Your task to perform on an android device: open device folders in google photos Image 0: 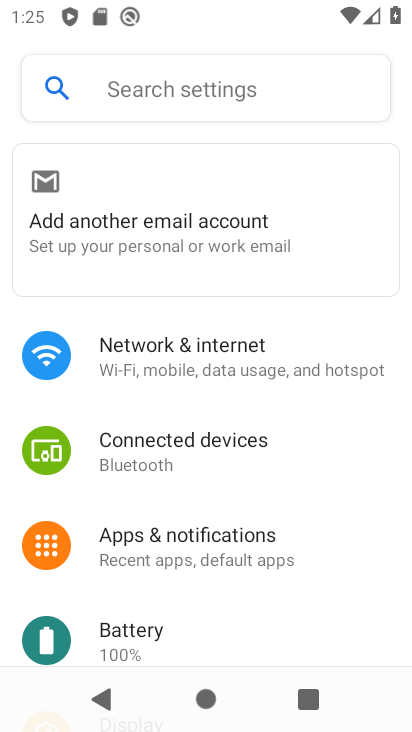
Step 0: press back button
Your task to perform on an android device: open device folders in google photos Image 1: 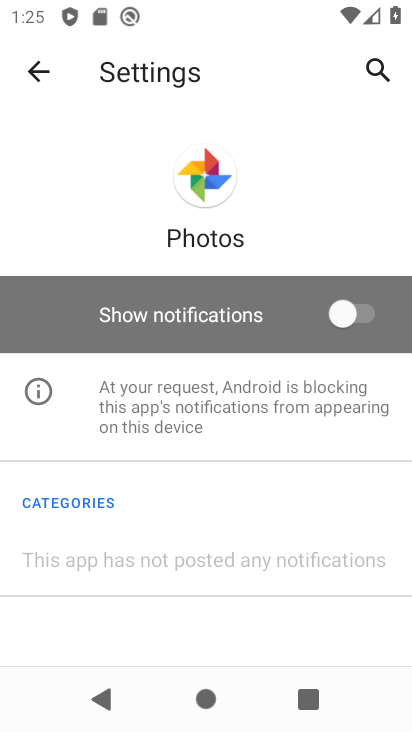
Step 1: click (47, 78)
Your task to perform on an android device: open device folders in google photos Image 2: 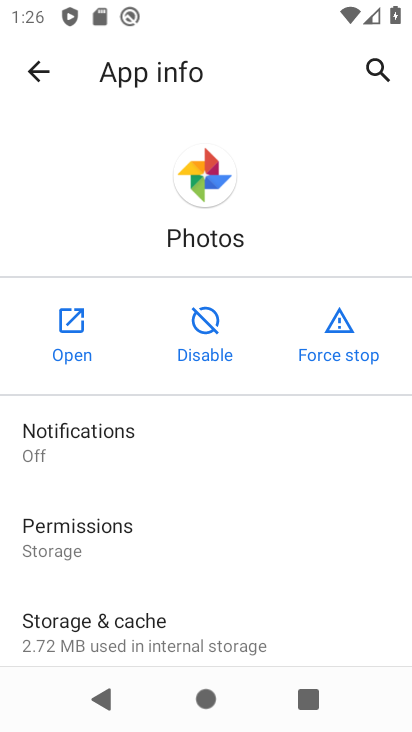
Step 2: click (38, 62)
Your task to perform on an android device: open device folders in google photos Image 3: 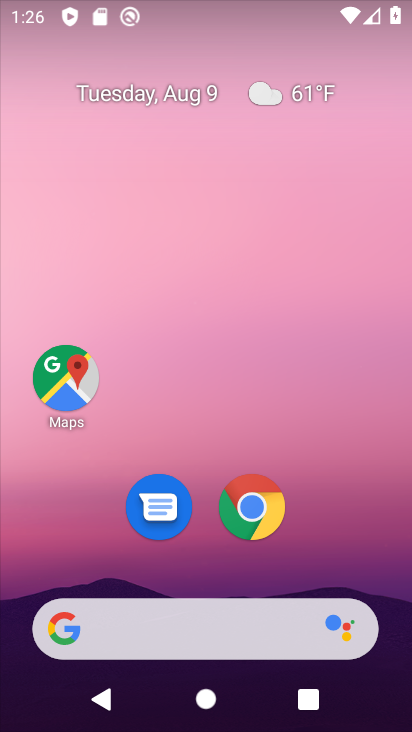
Step 3: drag from (168, 637) to (211, 38)
Your task to perform on an android device: open device folders in google photos Image 4: 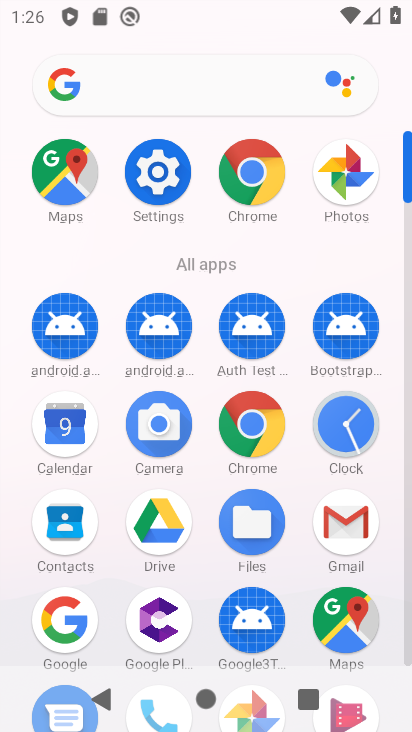
Step 4: click (341, 169)
Your task to perform on an android device: open device folders in google photos Image 5: 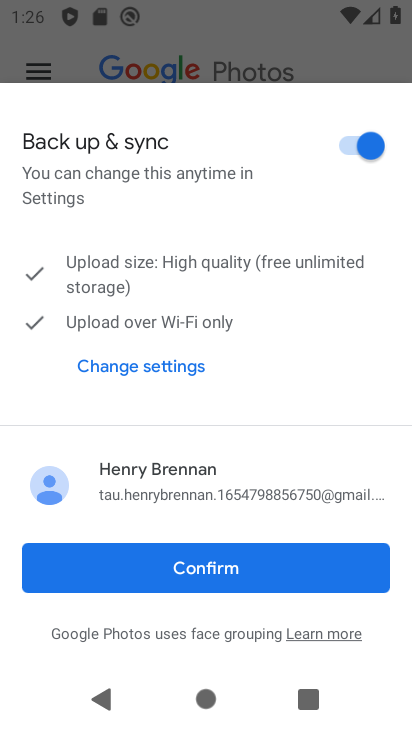
Step 5: click (156, 574)
Your task to perform on an android device: open device folders in google photos Image 6: 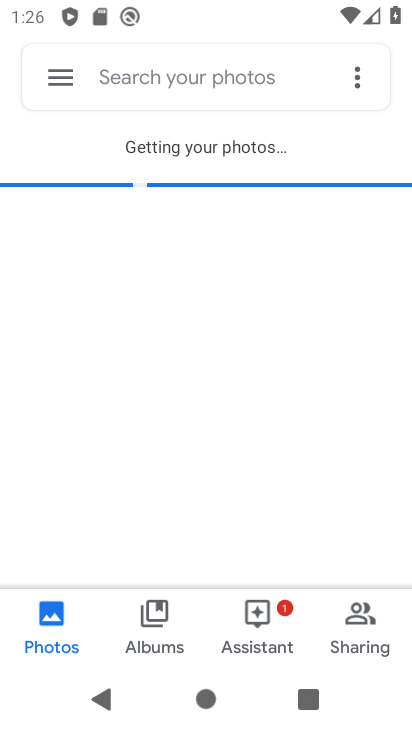
Step 6: click (55, 67)
Your task to perform on an android device: open device folders in google photos Image 7: 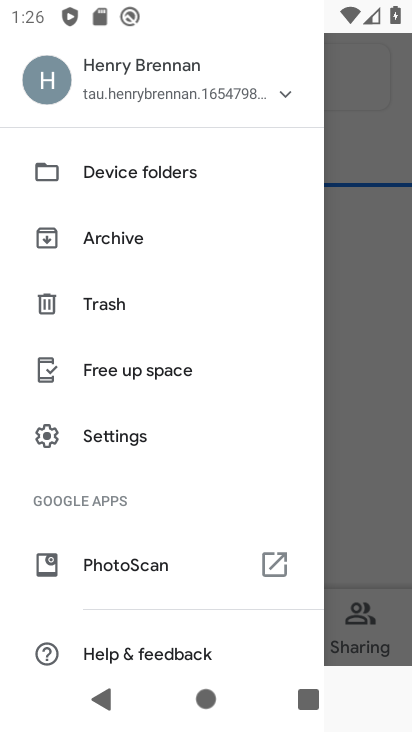
Step 7: click (126, 172)
Your task to perform on an android device: open device folders in google photos Image 8: 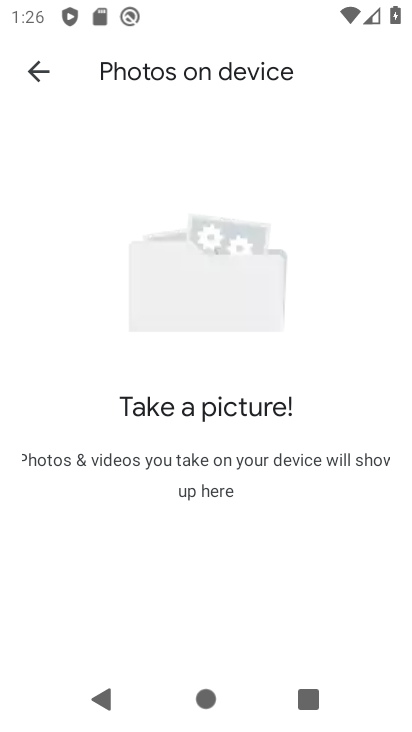
Step 8: task complete